Your task to perform on an android device: Open battery settings Image 0: 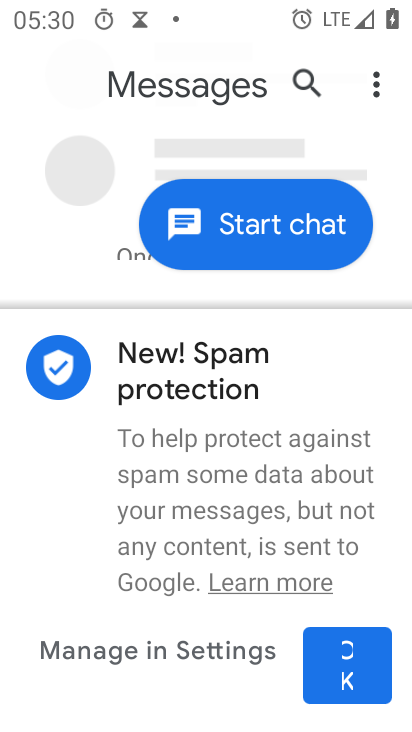
Step 0: press home button
Your task to perform on an android device: Open battery settings Image 1: 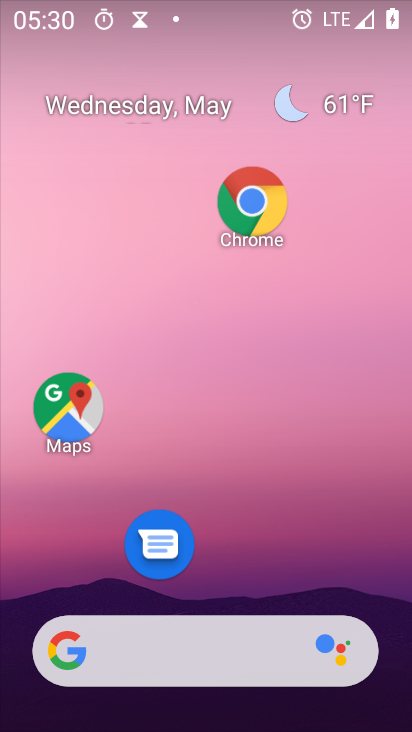
Step 1: drag from (255, 610) to (242, 132)
Your task to perform on an android device: Open battery settings Image 2: 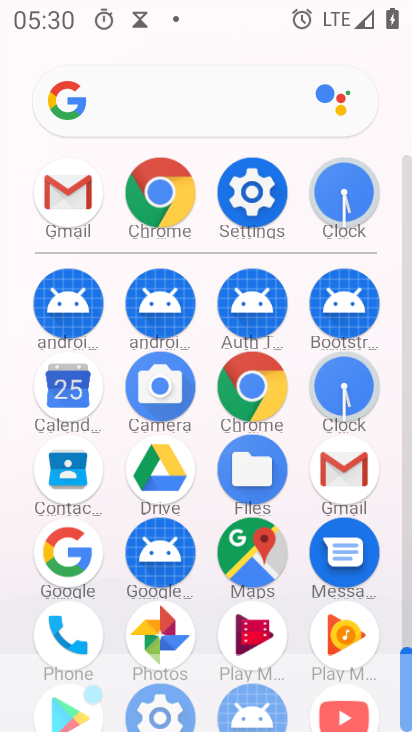
Step 2: click (254, 187)
Your task to perform on an android device: Open battery settings Image 3: 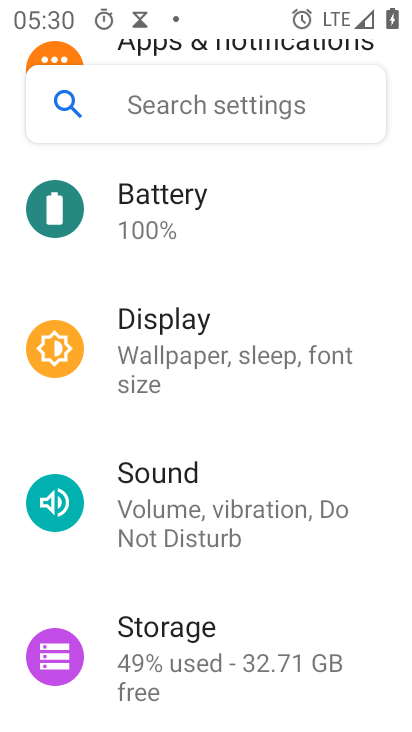
Step 3: click (176, 221)
Your task to perform on an android device: Open battery settings Image 4: 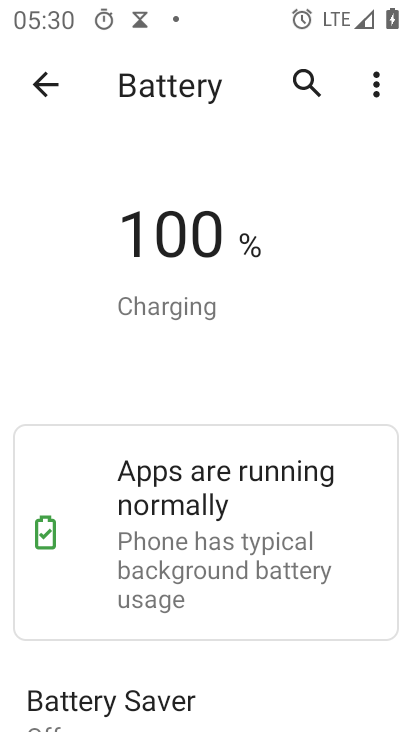
Step 4: task complete